Your task to perform on an android device: Open settings Image 0: 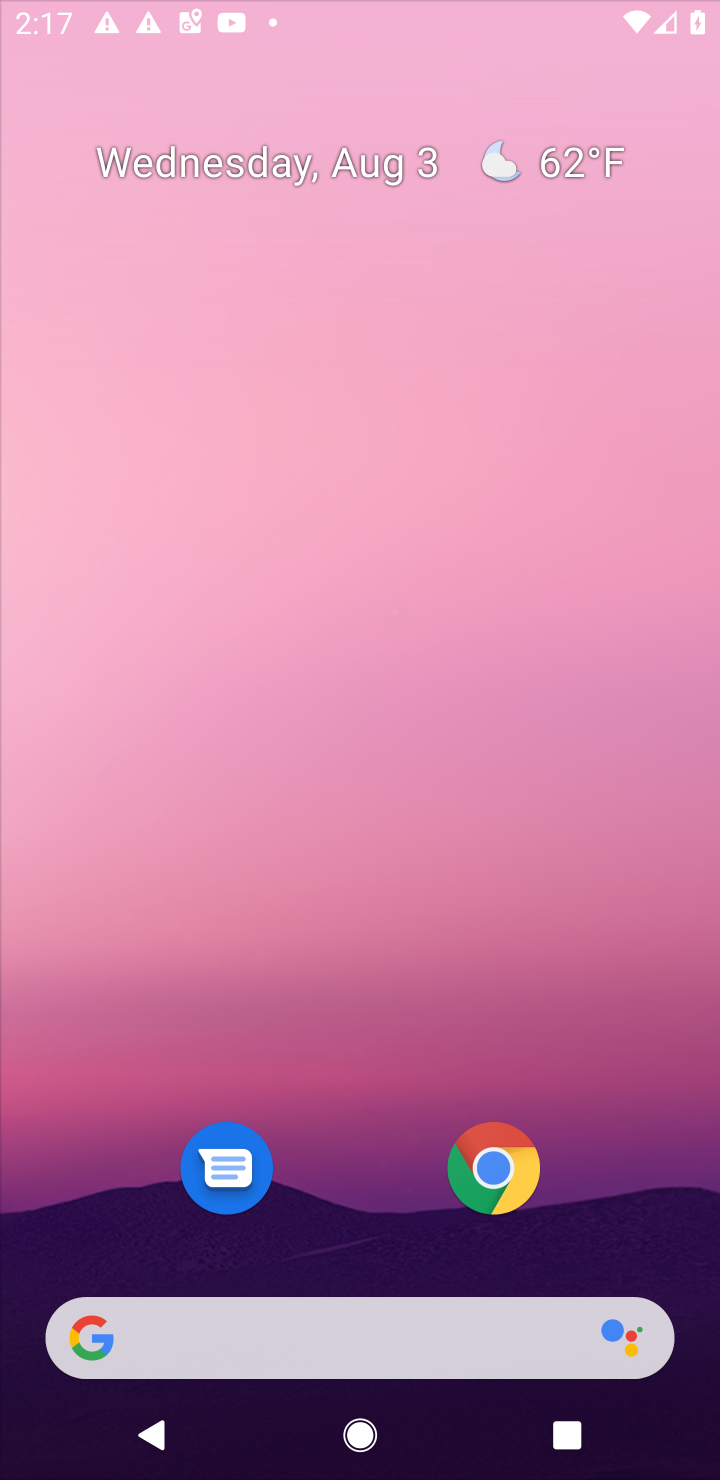
Step 0: press home button
Your task to perform on an android device: Open settings Image 1: 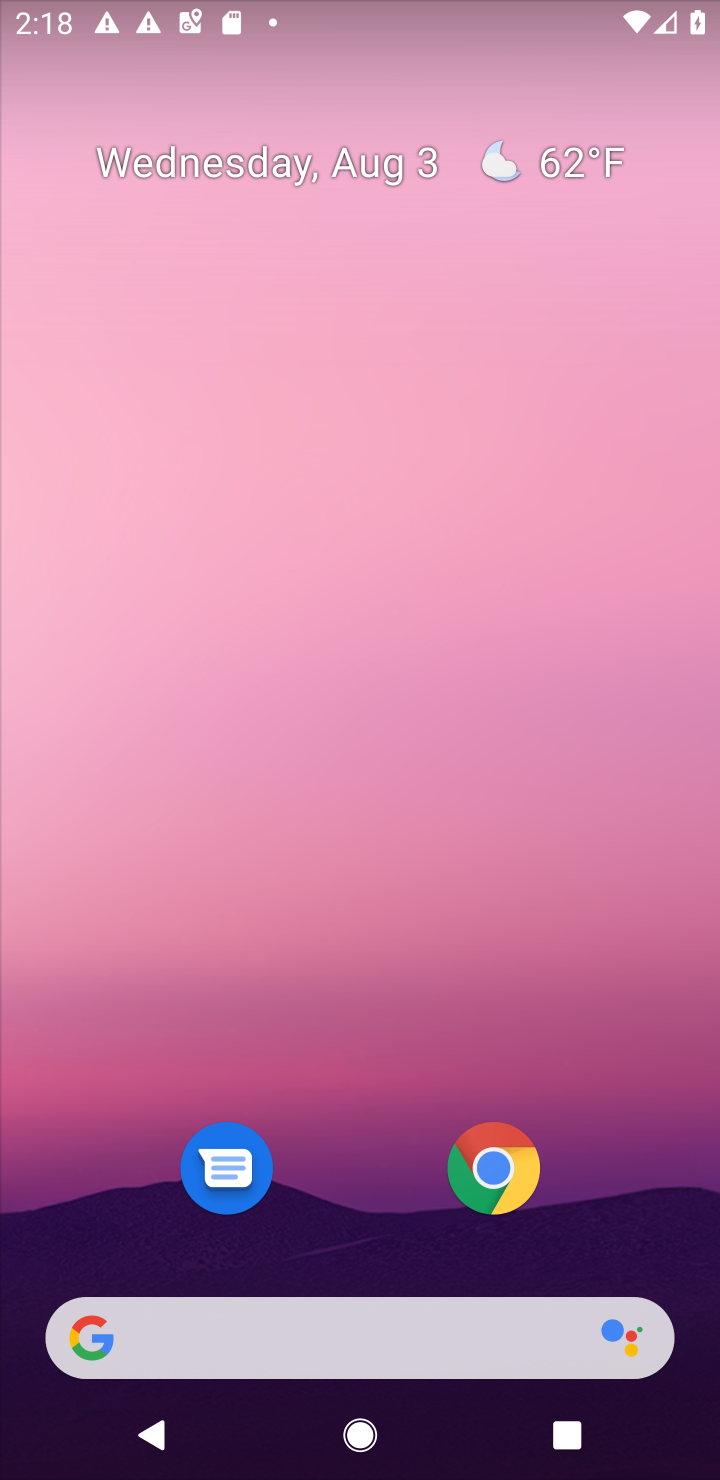
Step 1: drag from (654, 1170) to (651, 303)
Your task to perform on an android device: Open settings Image 2: 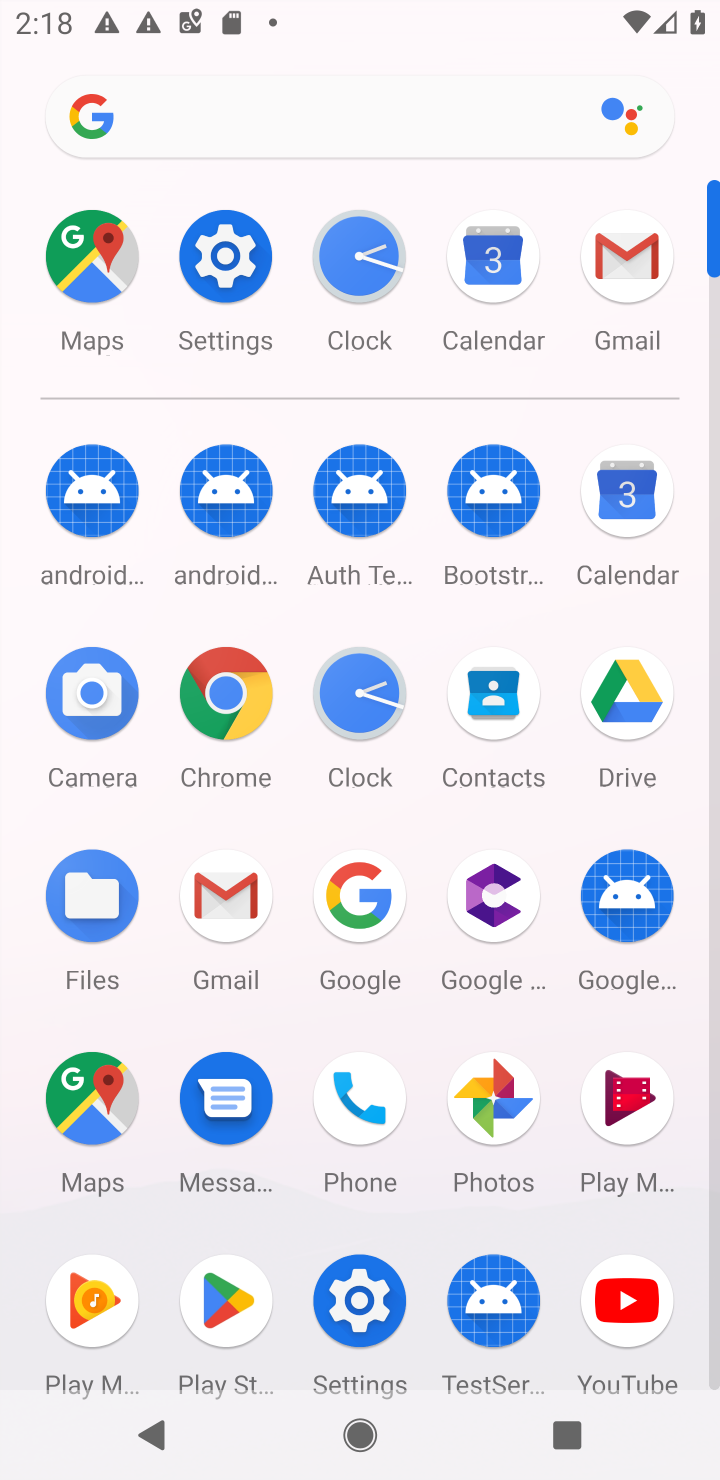
Step 2: click (356, 1304)
Your task to perform on an android device: Open settings Image 3: 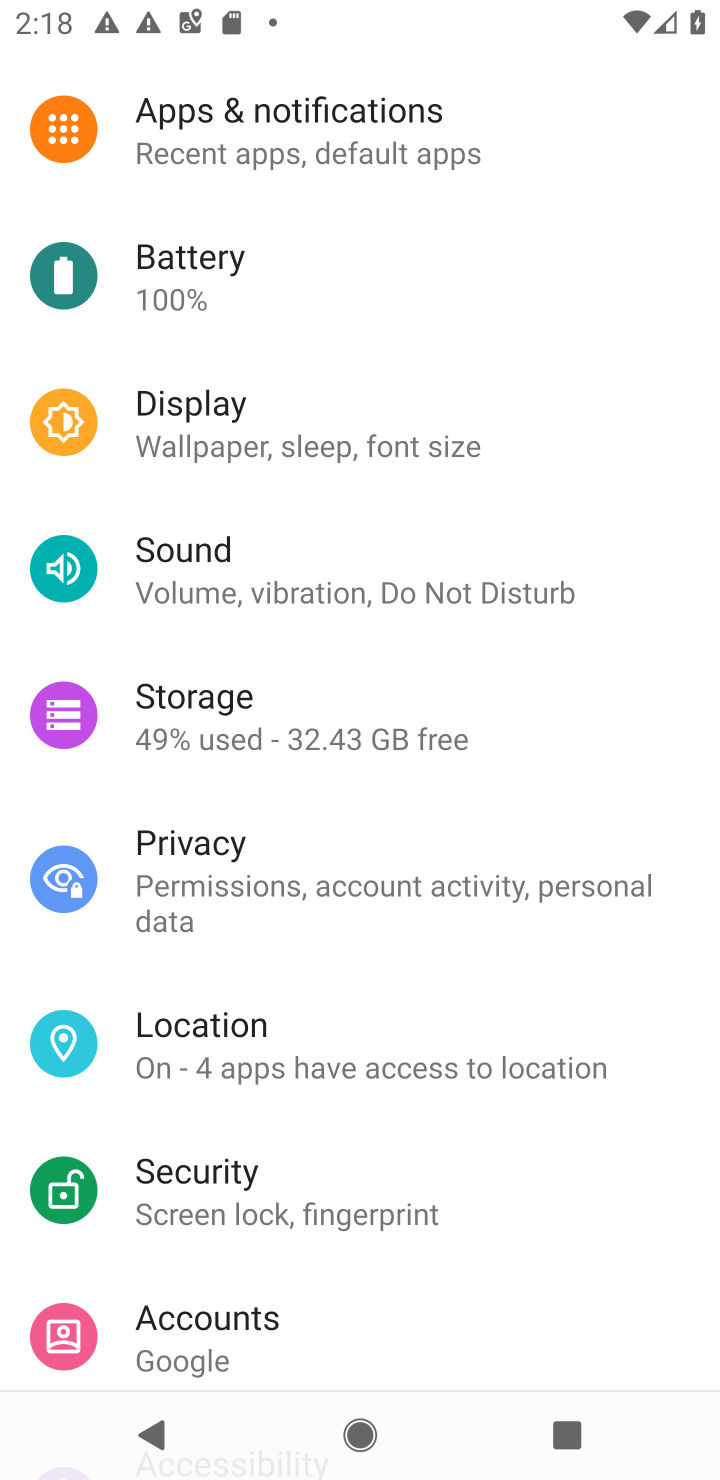
Step 3: task complete